Your task to perform on an android device: set default search engine in the chrome app Image 0: 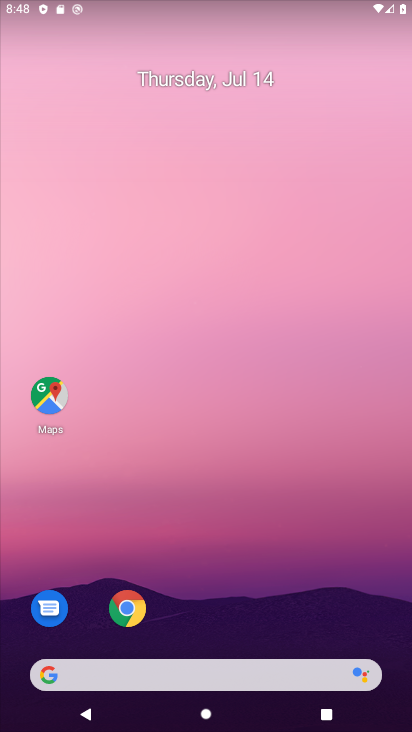
Step 0: click (138, 631)
Your task to perform on an android device: set default search engine in the chrome app Image 1: 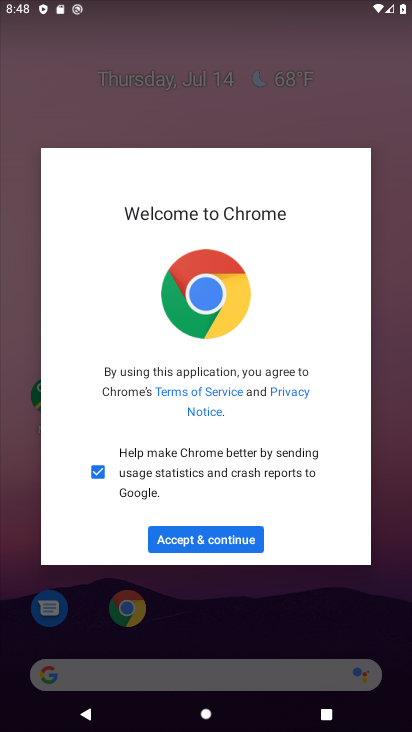
Step 1: click (209, 539)
Your task to perform on an android device: set default search engine in the chrome app Image 2: 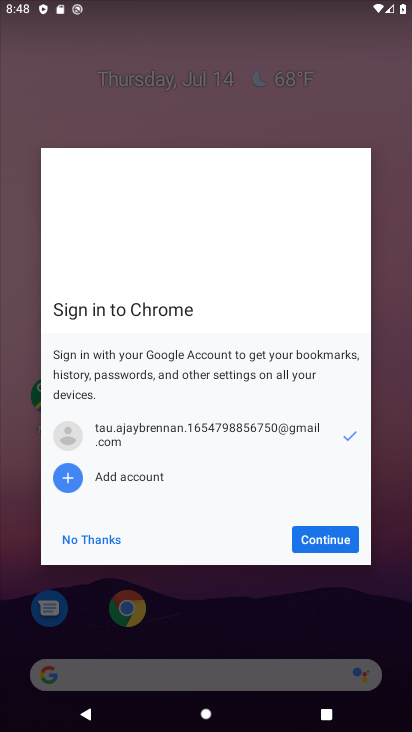
Step 2: click (344, 541)
Your task to perform on an android device: set default search engine in the chrome app Image 3: 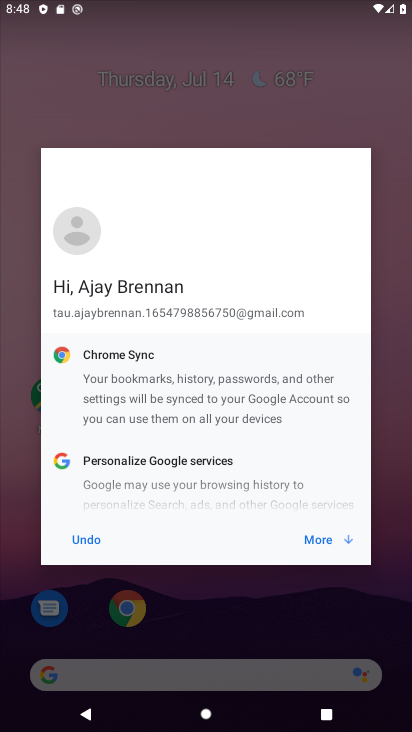
Step 3: click (329, 545)
Your task to perform on an android device: set default search engine in the chrome app Image 4: 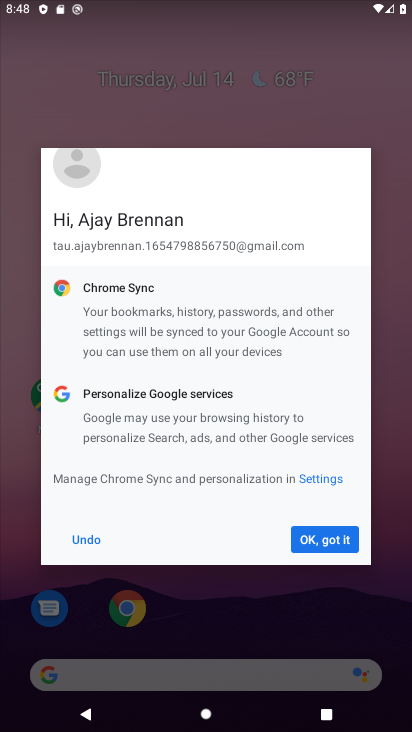
Step 4: click (329, 545)
Your task to perform on an android device: set default search engine in the chrome app Image 5: 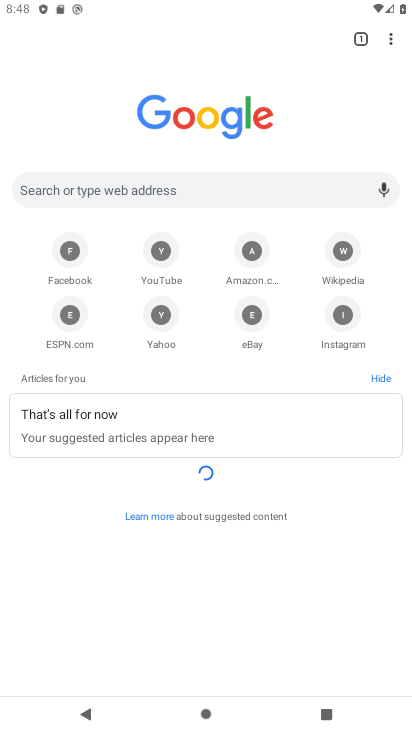
Step 5: drag from (393, 43) to (256, 334)
Your task to perform on an android device: set default search engine in the chrome app Image 6: 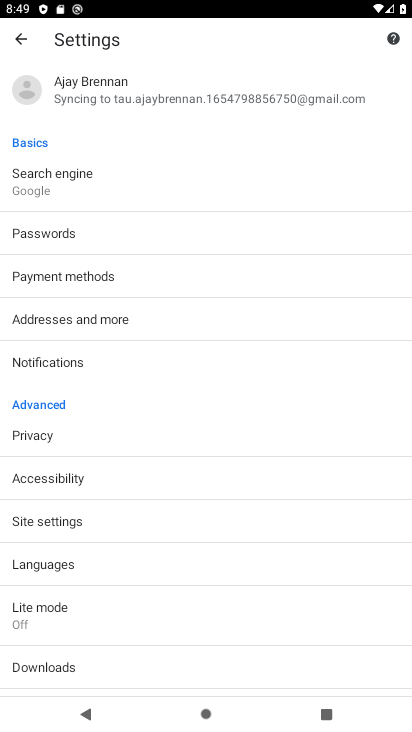
Step 6: click (50, 183)
Your task to perform on an android device: set default search engine in the chrome app Image 7: 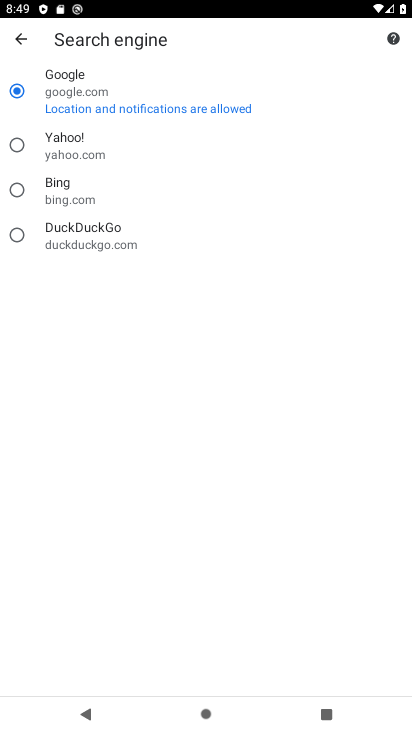
Step 7: click (65, 142)
Your task to perform on an android device: set default search engine in the chrome app Image 8: 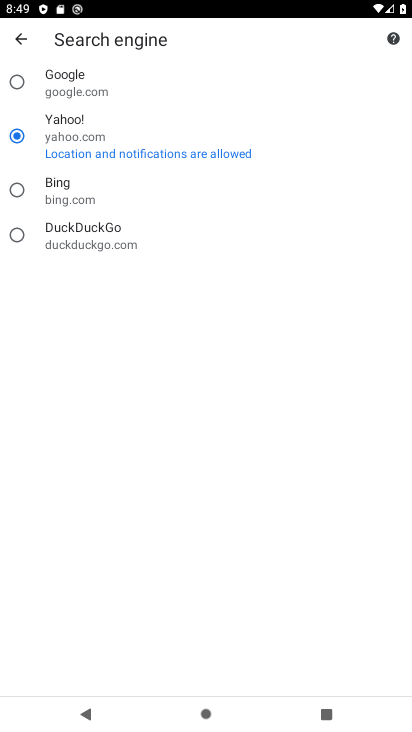
Step 8: task complete